Your task to perform on an android device: Open calendar and show me the third week of next month Image 0: 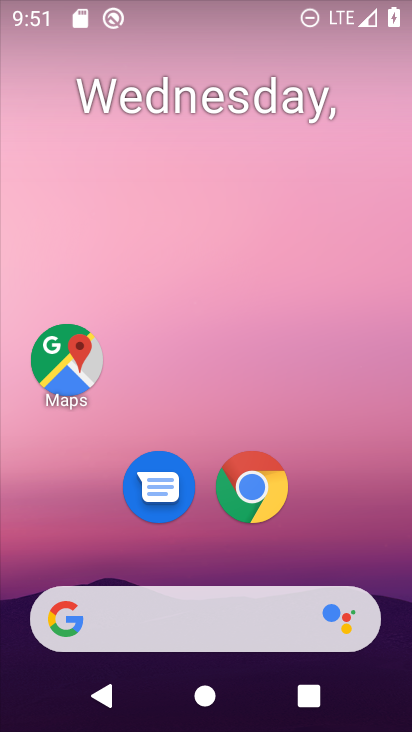
Step 0: drag from (338, 486) to (251, 8)
Your task to perform on an android device: Open calendar and show me the third week of next month Image 1: 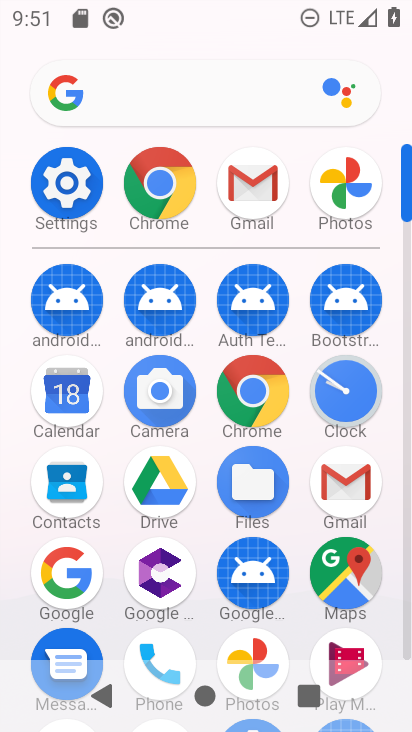
Step 1: click (72, 400)
Your task to perform on an android device: Open calendar and show me the third week of next month Image 2: 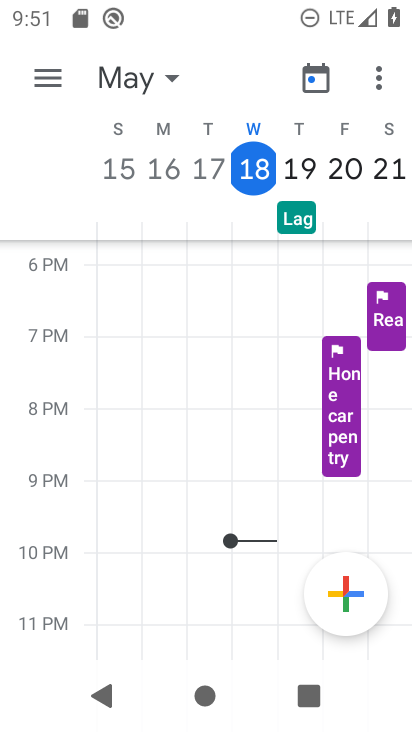
Step 2: click (170, 76)
Your task to perform on an android device: Open calendar and show me the third week of next month Image 3: 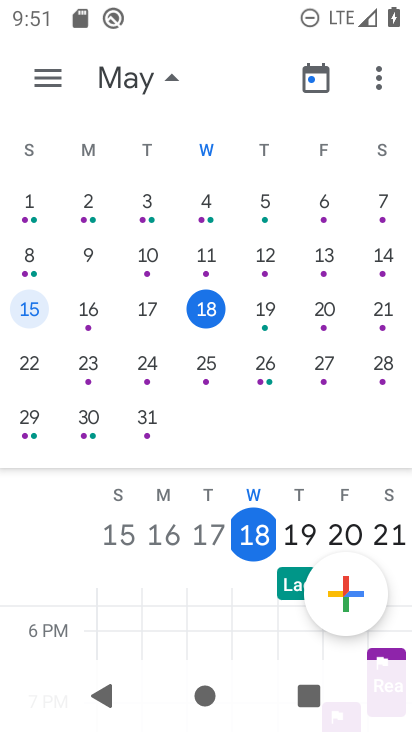
Step 3: drag from (357, 262) to (12, 268)
Your task to perform on an android device: Open calendar and show me the third week of next month Image 4: 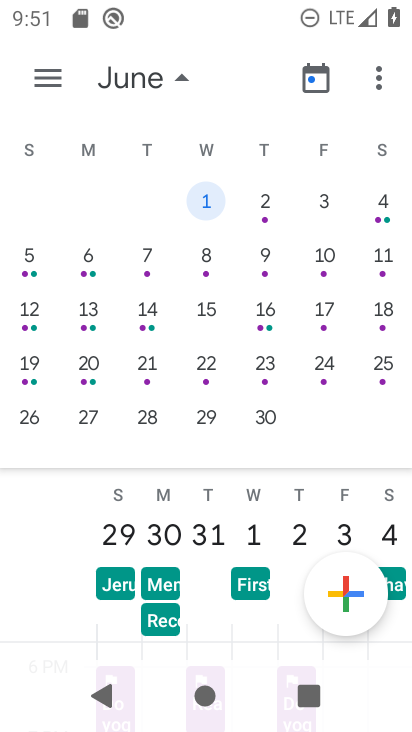
Step 4: click (203, 306)
Your task to perform on an android device: Open calendar and show me the third week of next month Image 5: 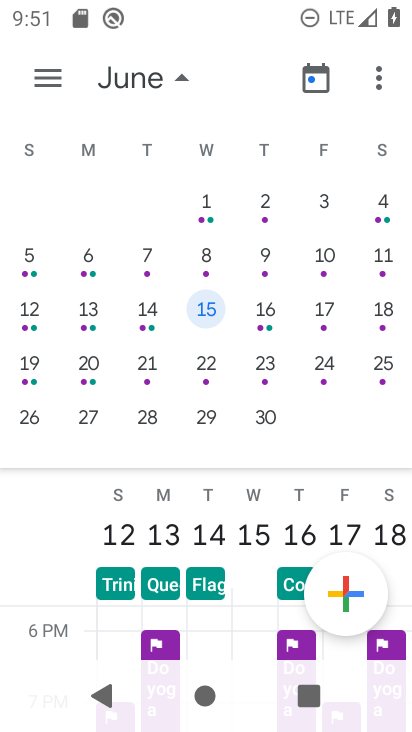
Step 5: task complete